Your task to perform on an android device: toggle notification dots Image 0: 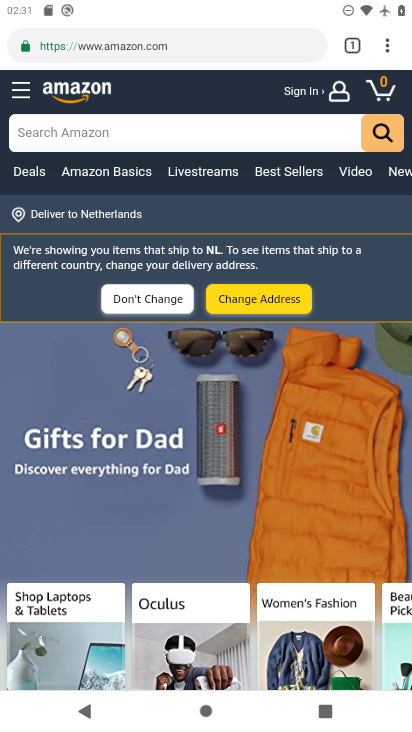
Step 0: press home button
Your task to perform on an android device: toggle notification dots Image 1: 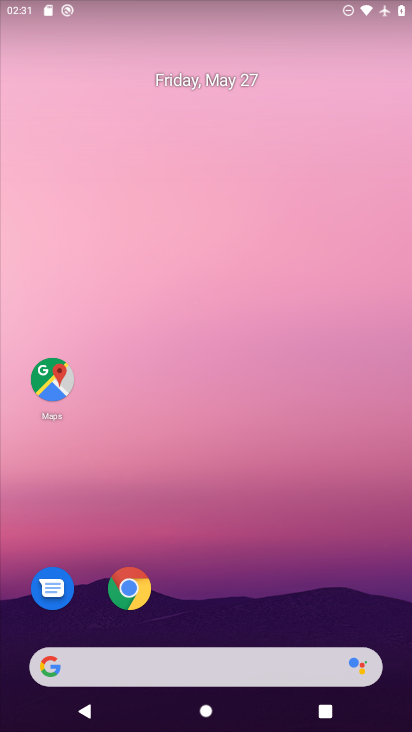
Step 1: drag from (378, 541) to (332, 22)
Your task to perform on an android device: toggle notification dots Image 2: 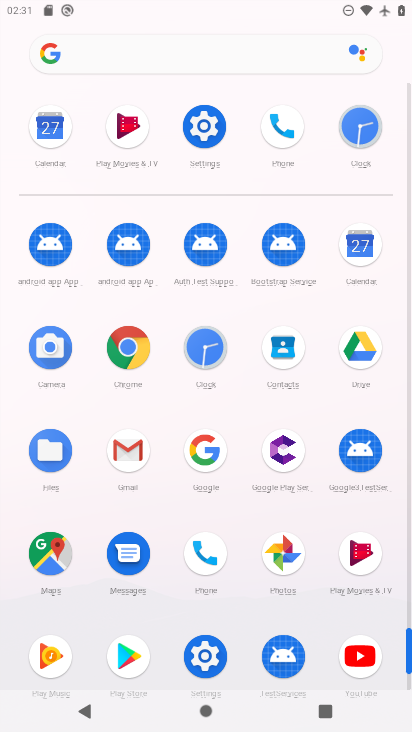
Step 2: click (202, 654)
Your task to perform on an android device: toggle notification dots Image 3: 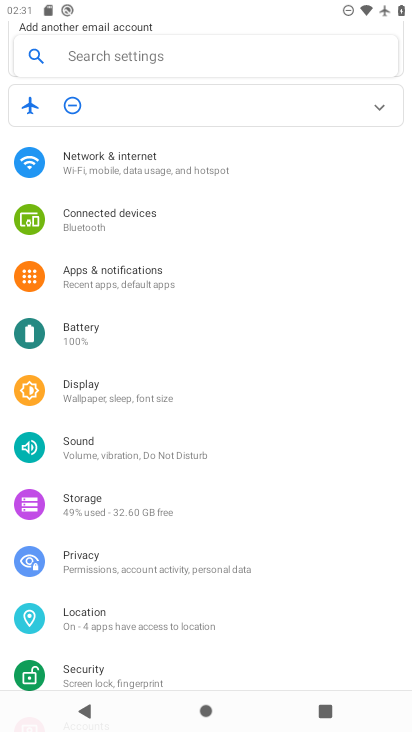
Step 3: click (130, 266)
Your task to perform on an android device: toggle notification dots Image 4: 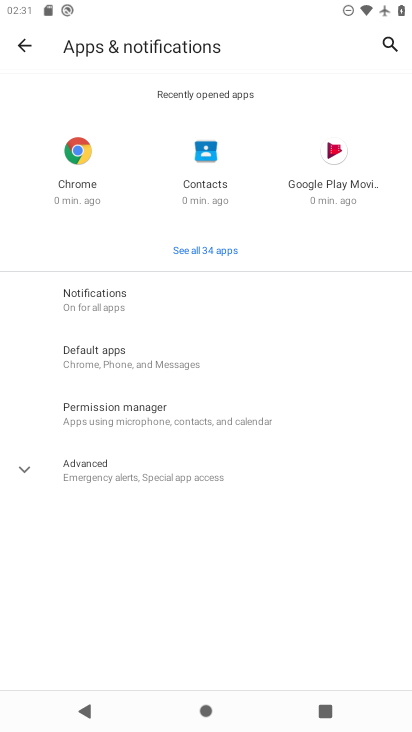
Step 4: click (115, 291)
Your task to perform on an android device: toggle notification dots Image 5: 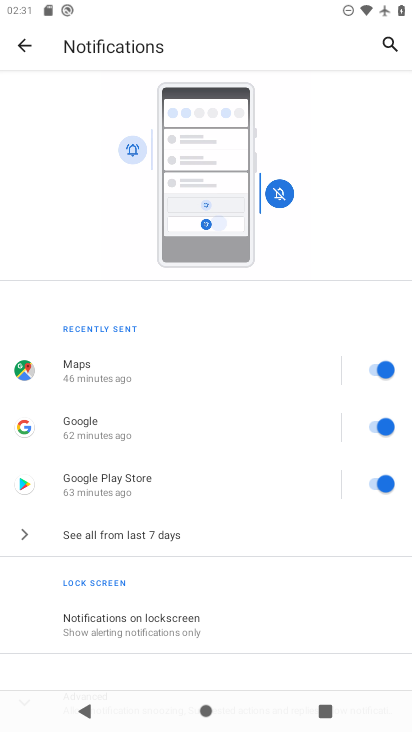
Step 5: drag from (302, 641) to (322, 151)
Your task to perform on an android device: toggle notification dots Image 6: 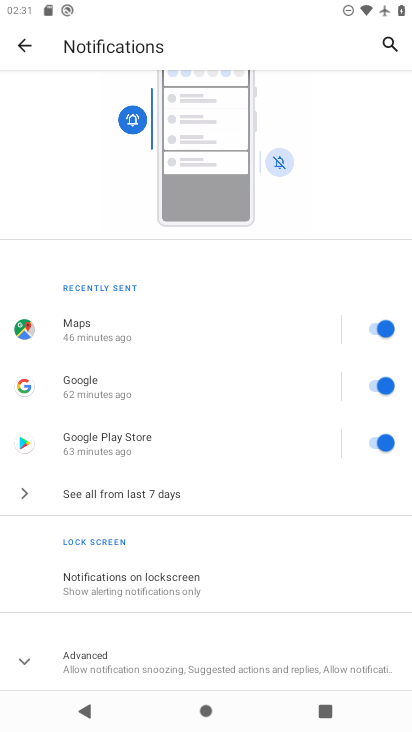
Step 6: click (16, 656)
Your task to perform on an android device: toggle notification dots Image 7: 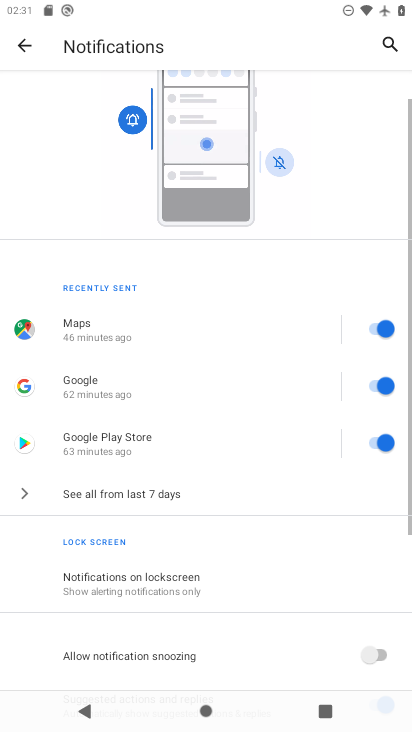
Step 7: drag from (338, 645) to (290, 196)
Your task to perform on an android device: toggle notification dots Image 8: 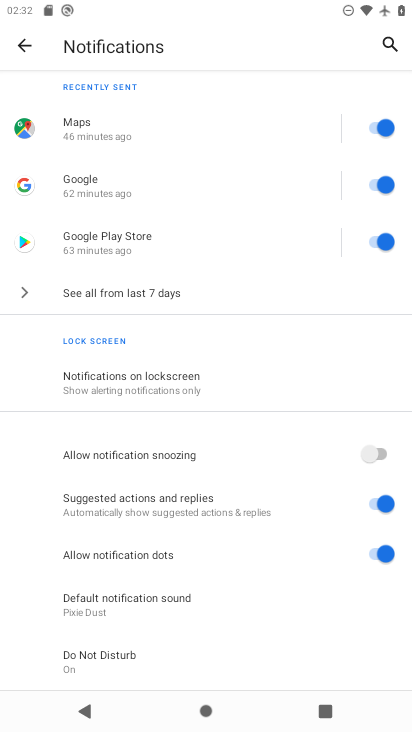
Step 8: click (370, 551)
Your task to perform on an android device: toggle notification dots Image 9: 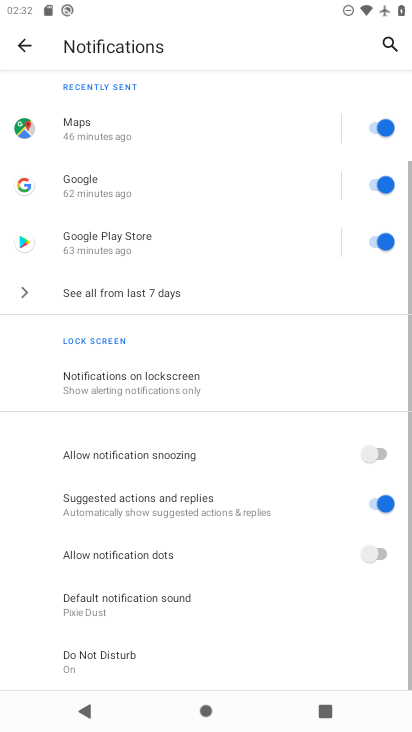
Step 9: task complete